Your task to perform on an android device: Set the phone to "Do not disturb". Image 0: 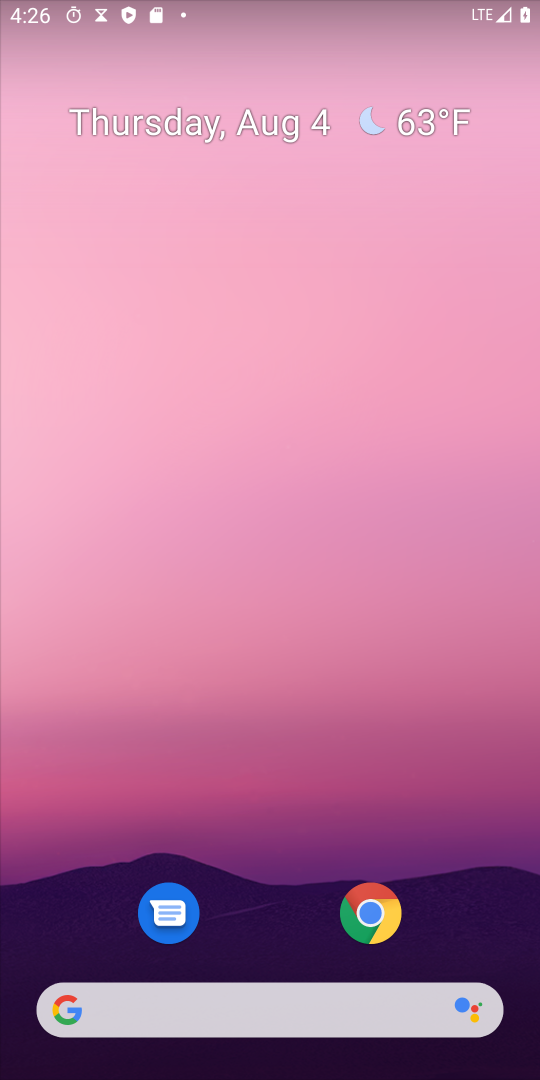
Step 0: drag from (238, 1008) to (259, 65)
Your task to perform on an android device: Set the phone to "Do not disturb". Image 1: 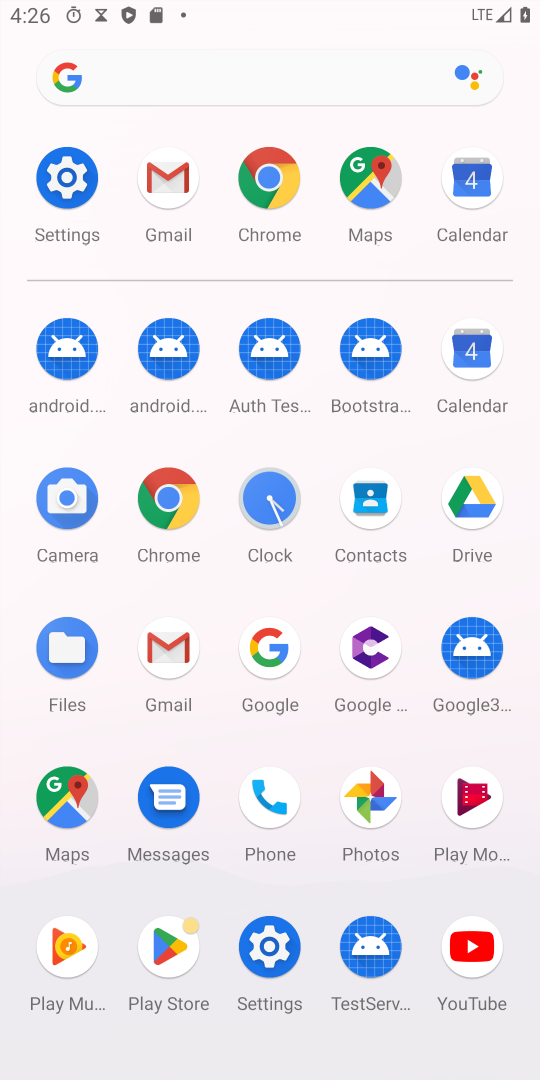
Step 1: click (37, 179)
Your task to perform on an android device: Set the phone to "Do not disturb". Image 2: 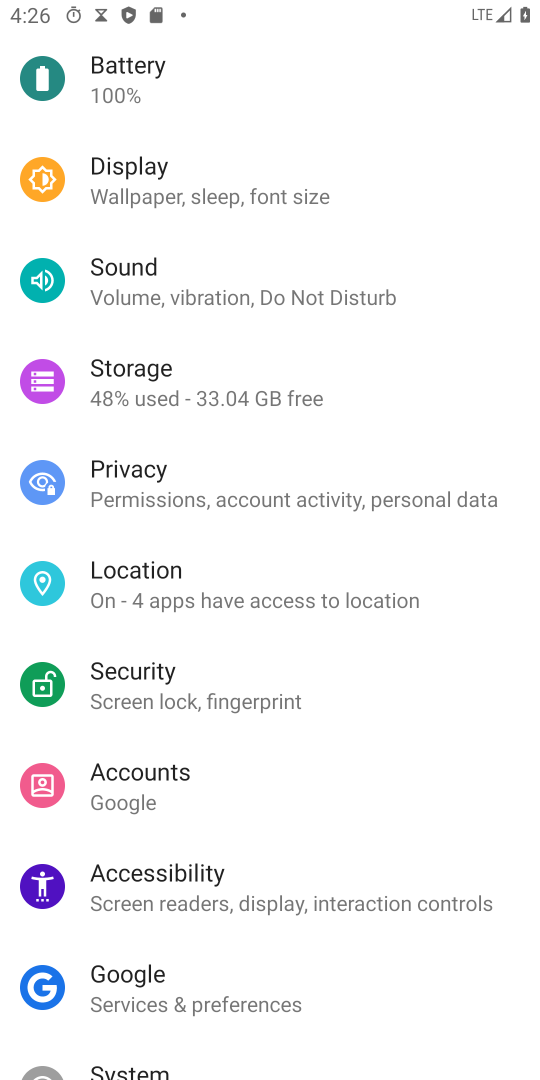
Step 2: click (318, 288)
Your task to perform on an android device: Set the phone to "Do not disturb". Image 3: 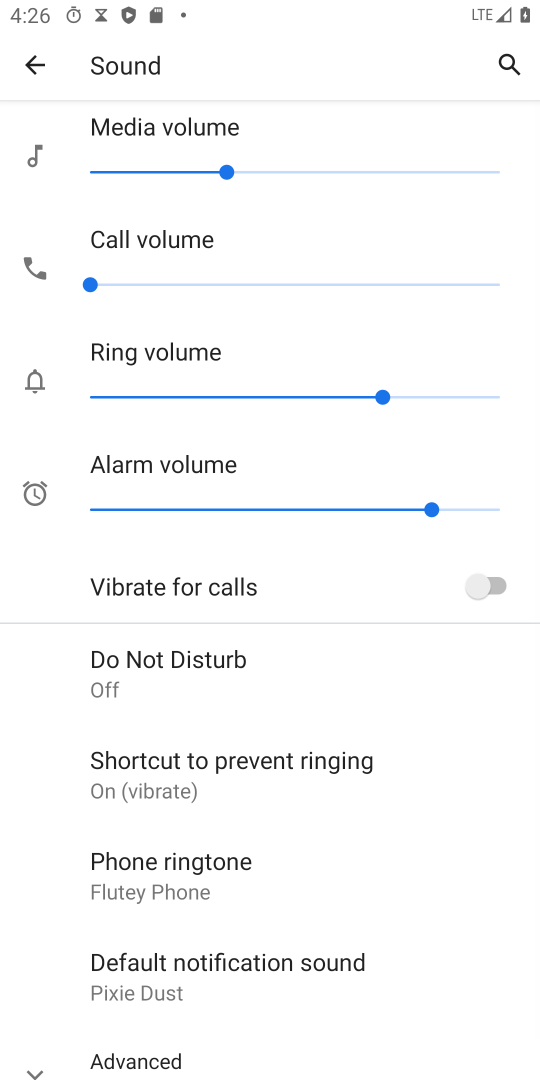
Step 3: task complete